Your task to perform on an android device: Search for a good pizza place on Maps Image 0: 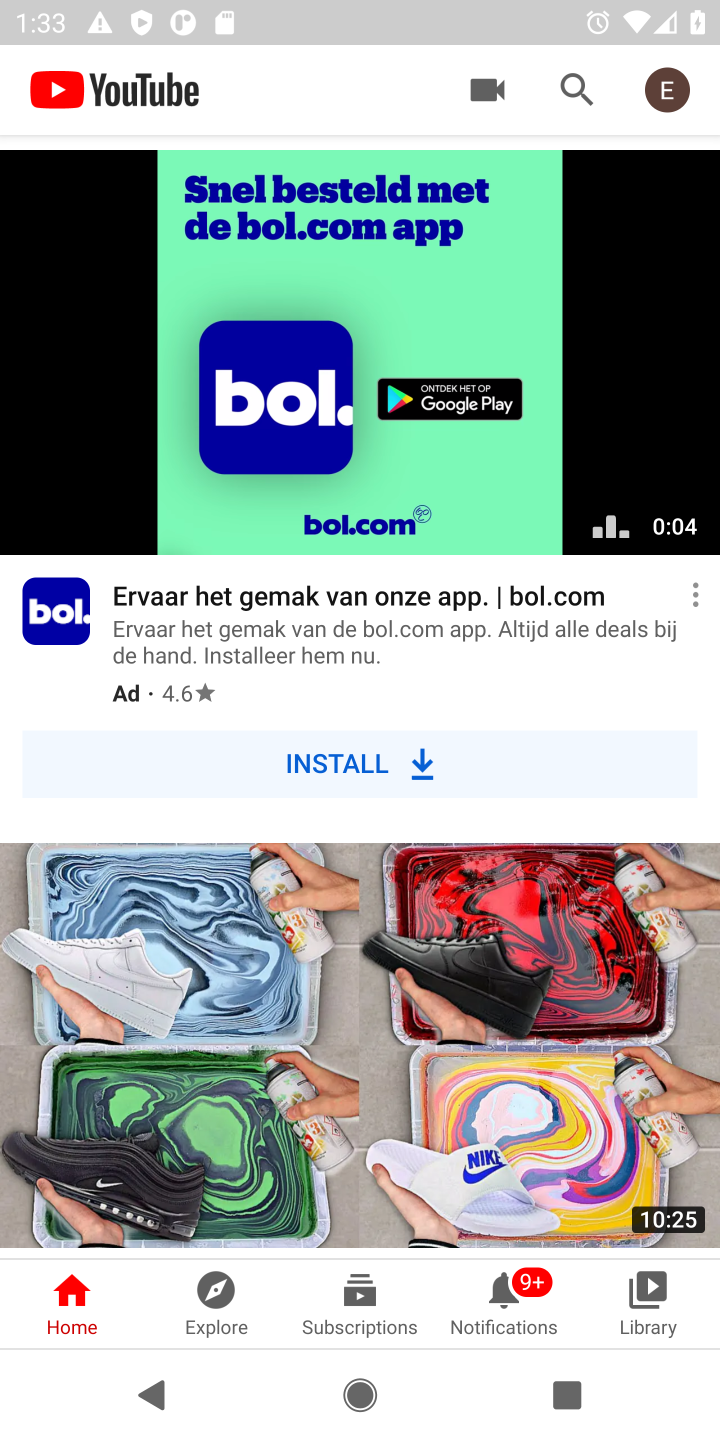
Step 0: press home button
Your task to perform on an android device: Search for a good pizza place on Maps Image 1: 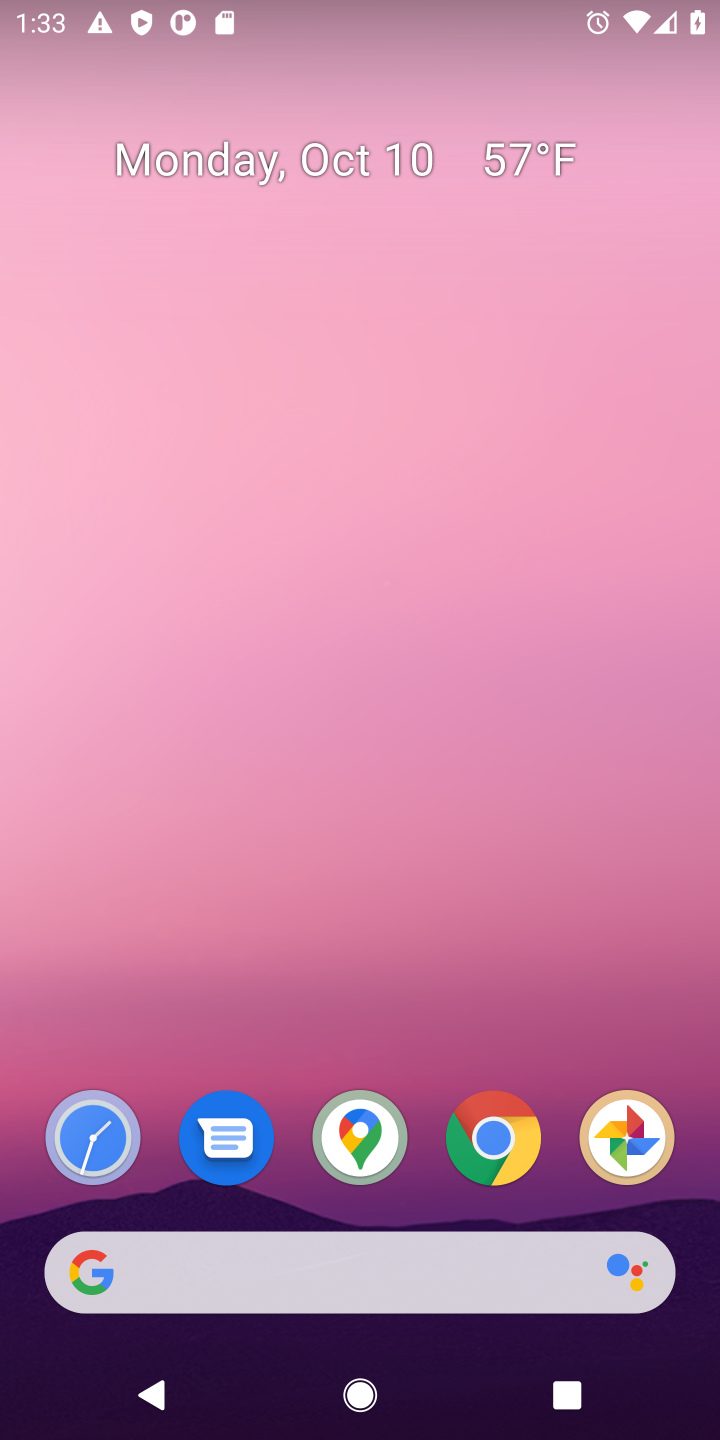
Step 1: click (314, 1258)
Your task to perform on an android device: Search for a good pizza place on Maps Image 2: 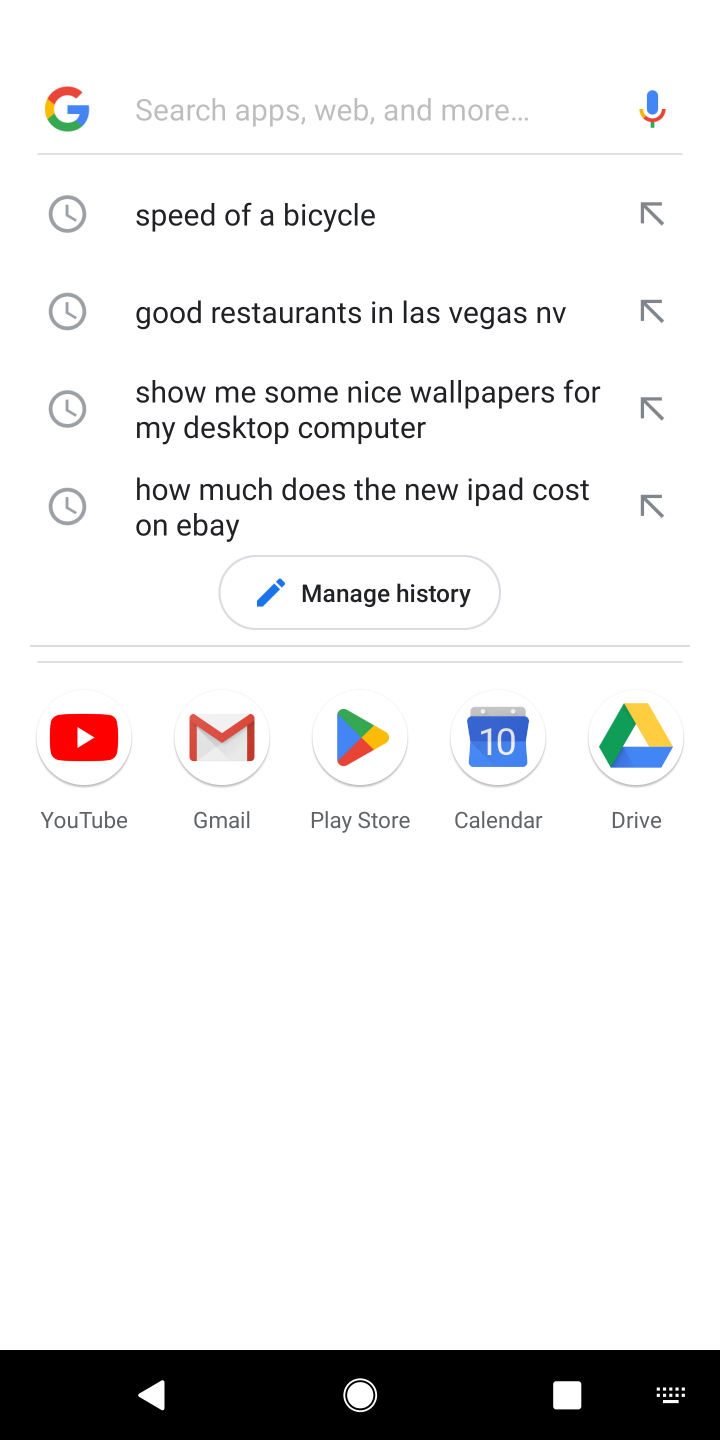
Step 2: type "good pizza place on maps"
Your task to perform on an android device: Search for a good pizza place on Maps Image 3: 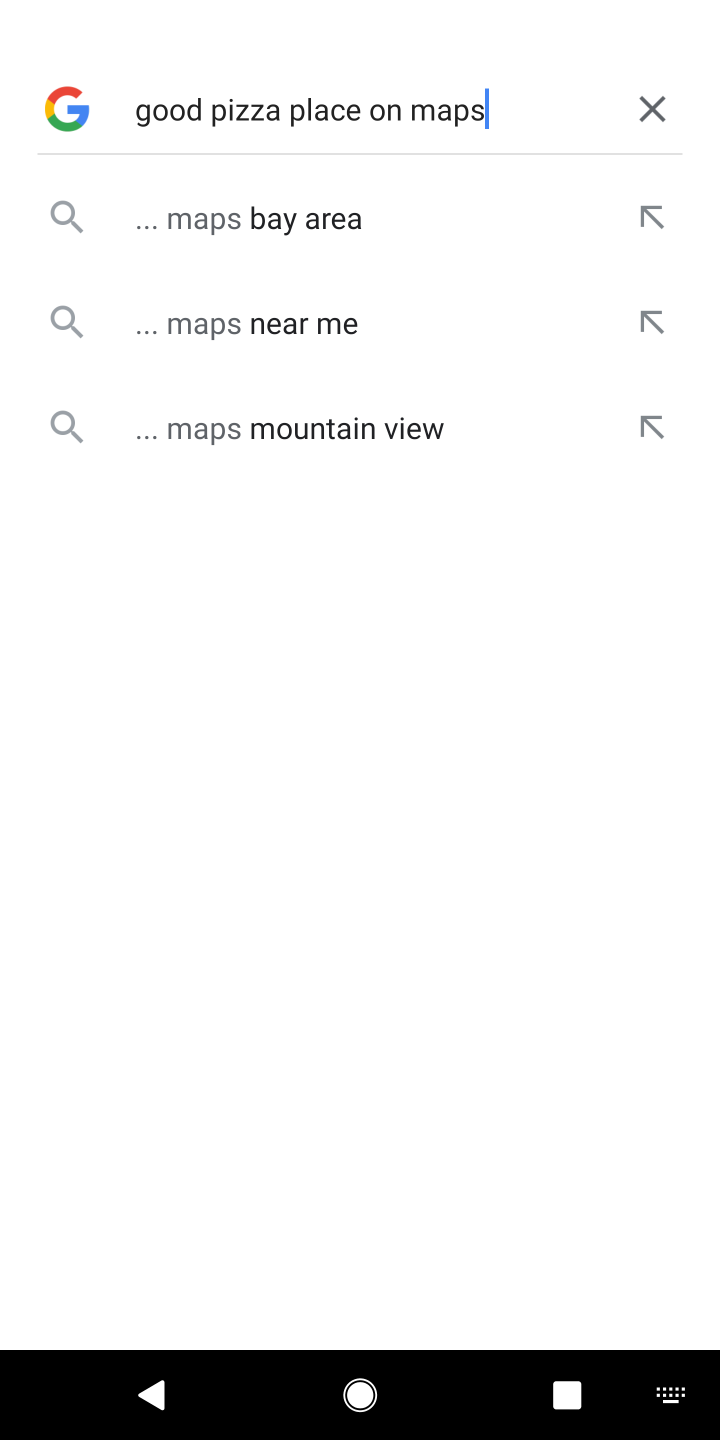
Step 3: click (318, 309)
Your task to perform on an android device: Search for a good pizza place on Maps Image 4: 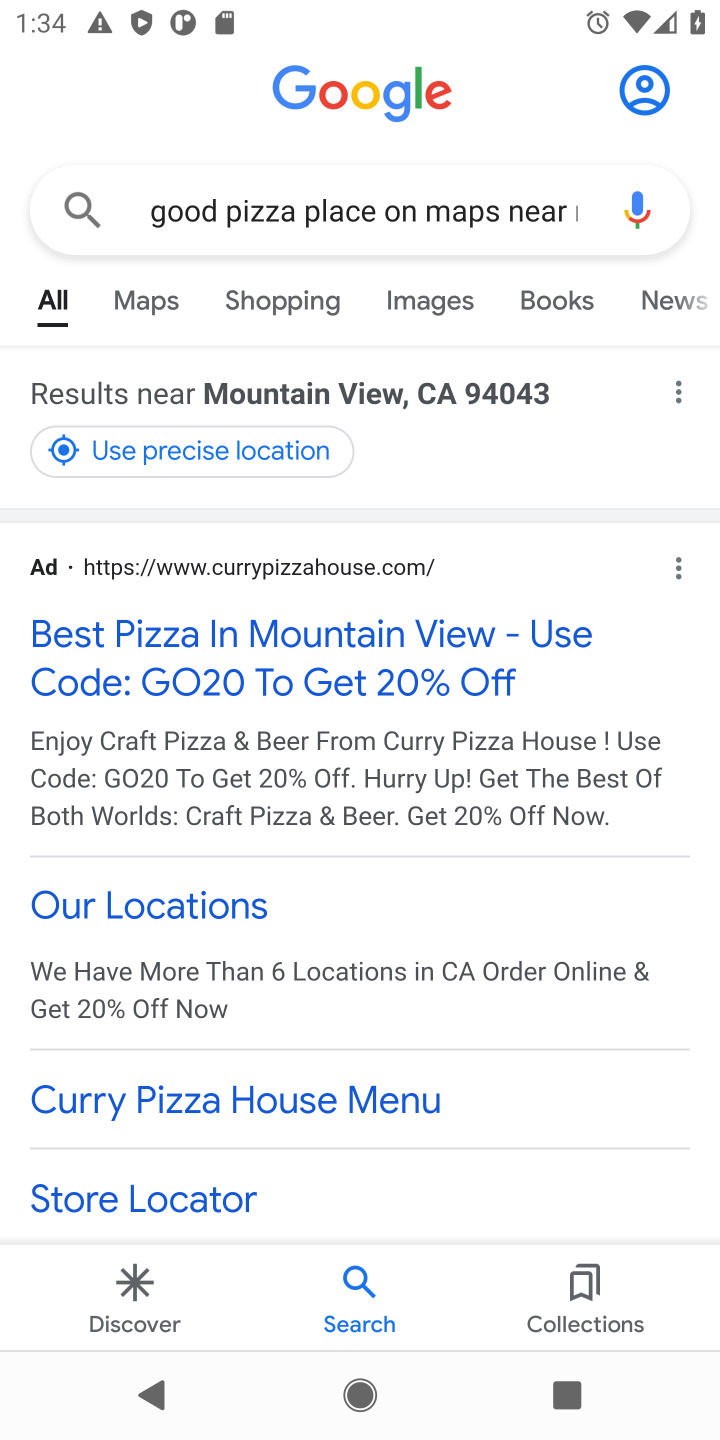
Step 4: click (382, 636)
Your task to perform on an android device: Search for a good pizza place on Maps Image 5: 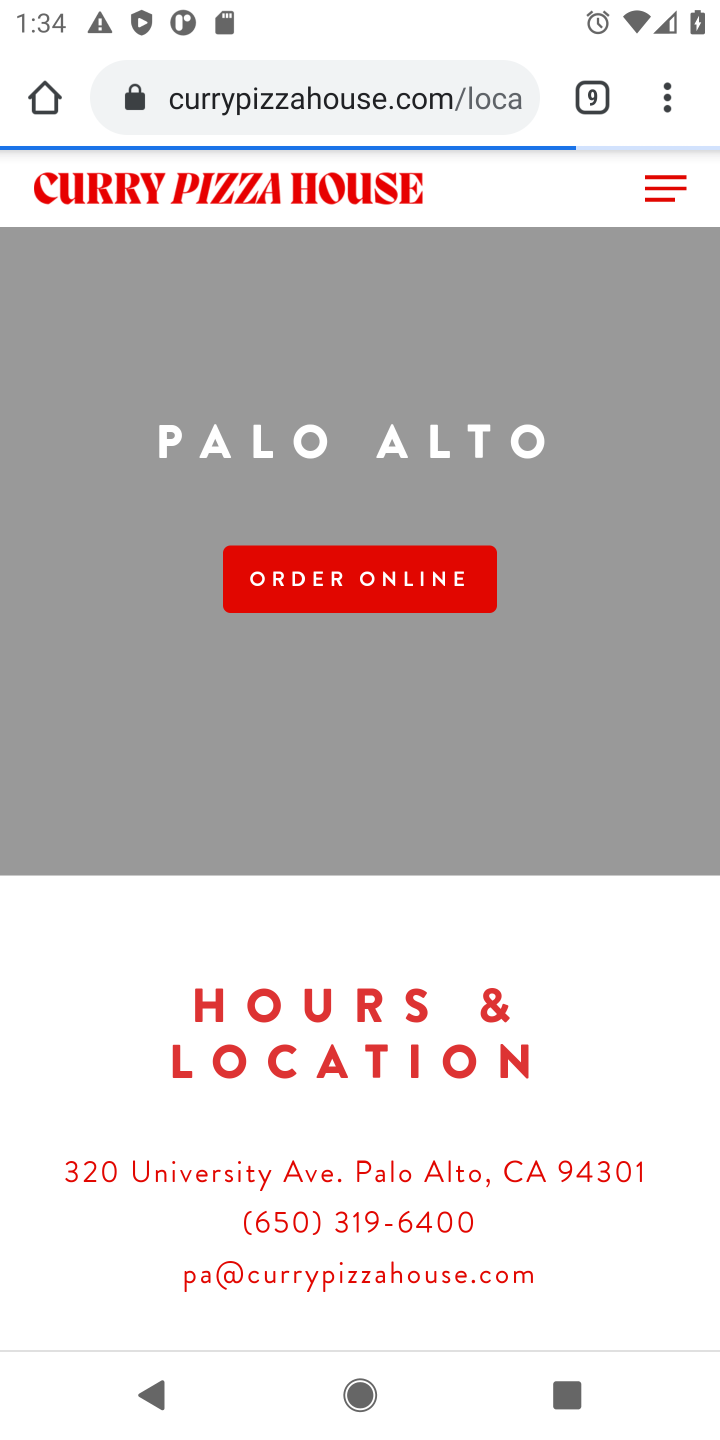
Step 5: task complete